Your task to perform on an android device: check storage Image 0: 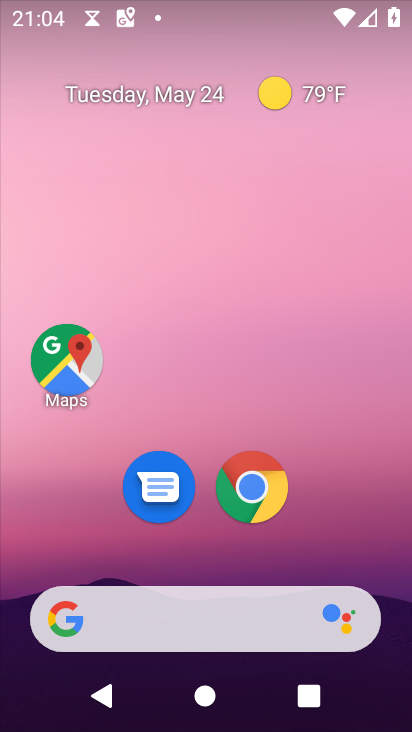
Step 0: drag from (388, 606) to (274, 167)
Your task to perform on an android device: check storage Image 1: 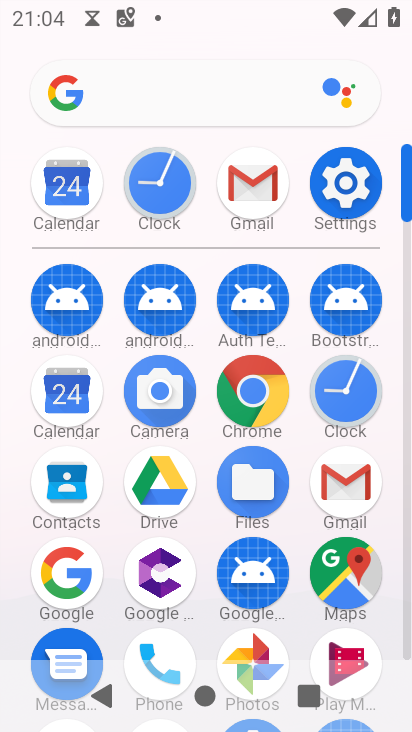
Step 1: click (354, 198)
Your task to perform on an android device: check storage Image 2: 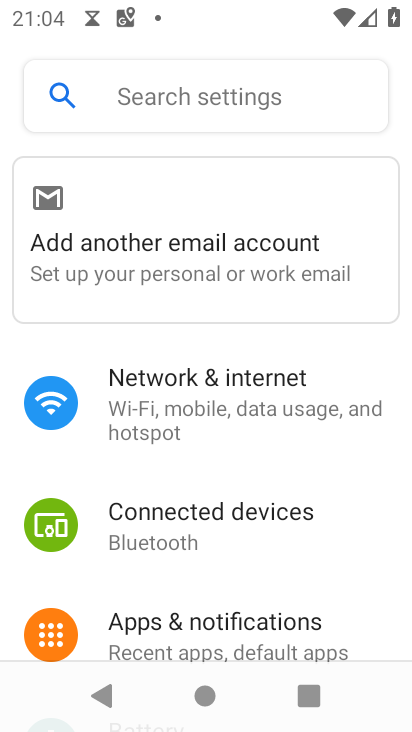
Step 2: drag from (355, 543) to (283, 171)
Your task to perform on an android device: check storage Image 3: 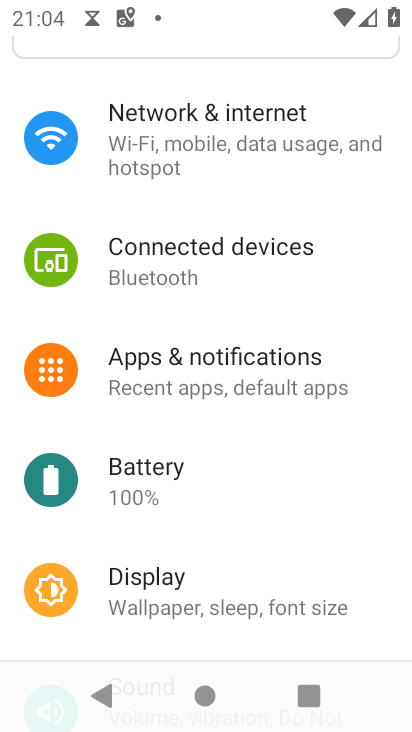
Step 3: drag from (257, 430) to (248, 119)
Your task to perform on an android device: check storage Image 4: 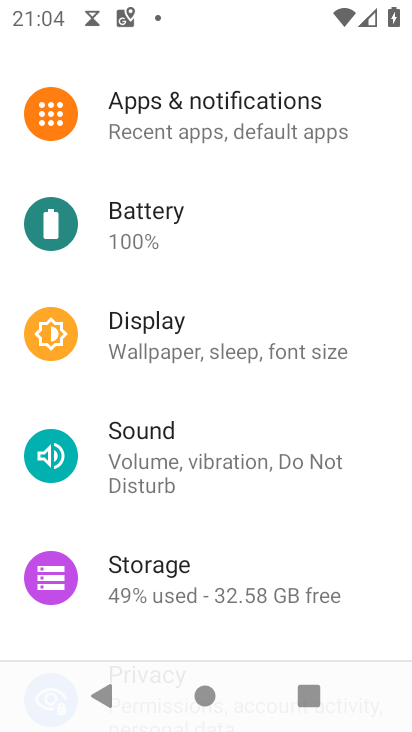
Step 4: click (164, 592)
Your task to perform on an android device: check storage Image 5: 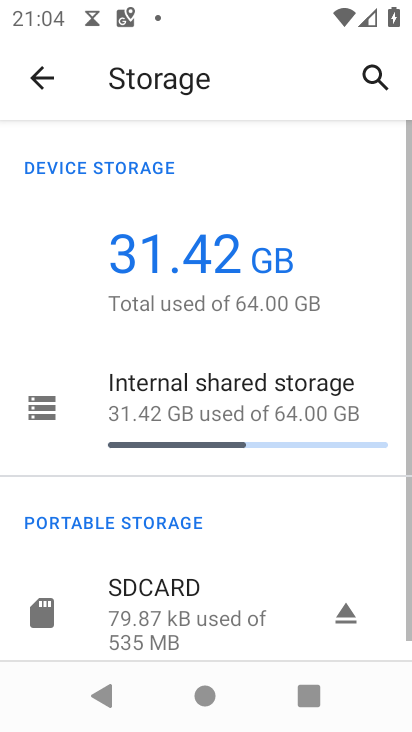
Step 5: task complete